Your task to perform on an android device: star an email in the gmail app Image 0: 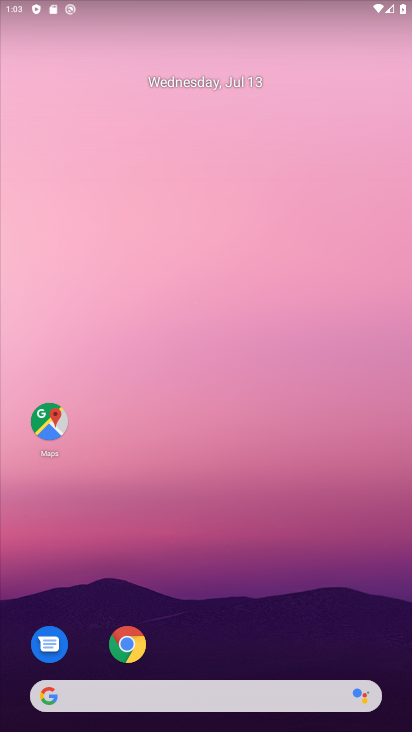
Step 0: press home button
Your task to perform on an android device: star an email in the gmail app Image 1: 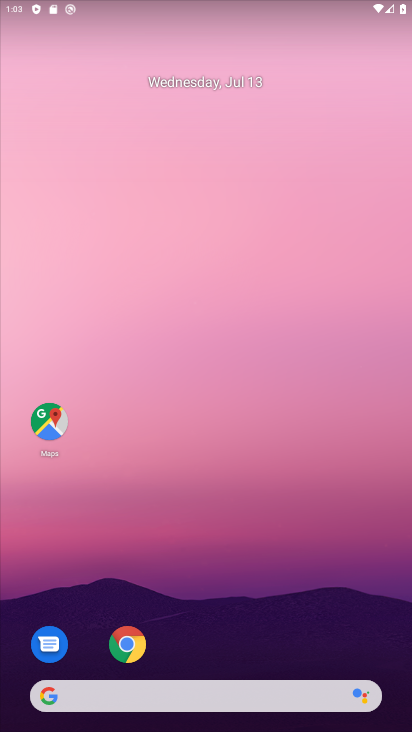
Step 1: drag from (267, 598) to (276, 63)
Your task to perform on an android device: star an email in the gmail app Image 2: 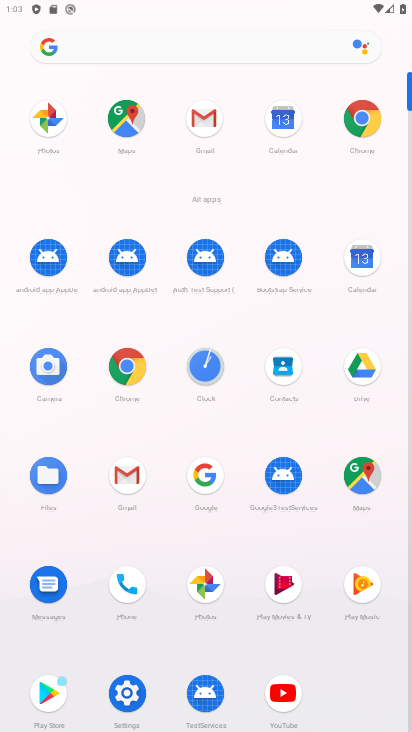
Step 2: click (196, 118)
Your task to perform on an android device: star an email in the gmail app Image 3: 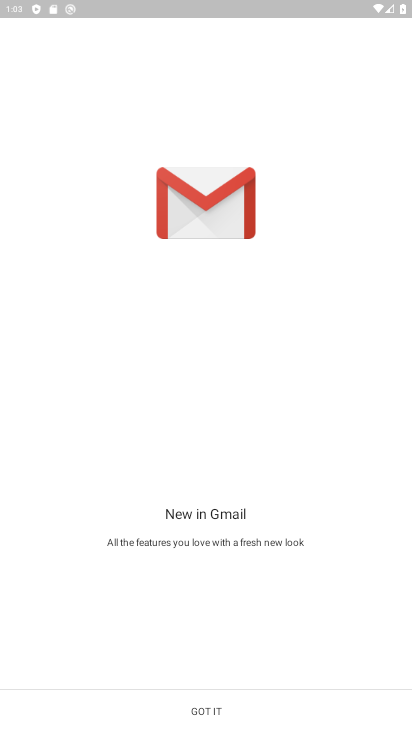
Step 3: click (208, 710)
Your task to perform on an android device: star an email in the gmail app Image 4: 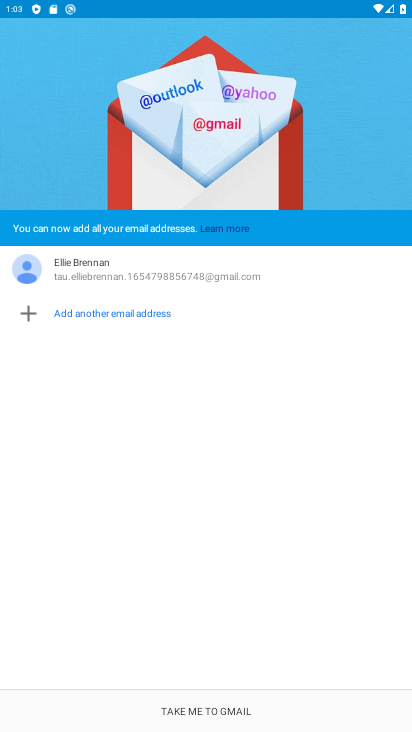
Step 4: click (205, 704)
Your task to perform on an android device: star an email in the gmail app Image 5: 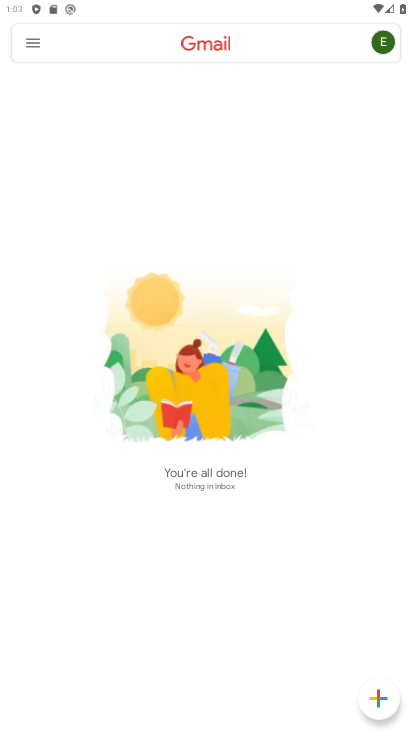
Step 5: click (31, 42)
Your task to perform on an android device: star an email in the gmail app Image 6: 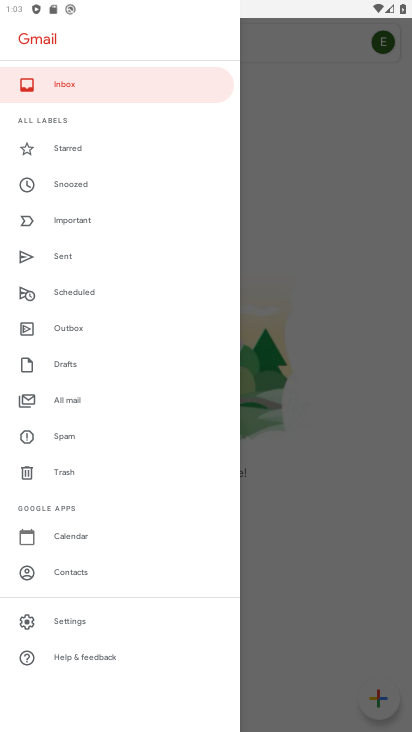
Step 6: click (53, 139)
Your task to perform on an android device: star an email in the gmail app Image 7: 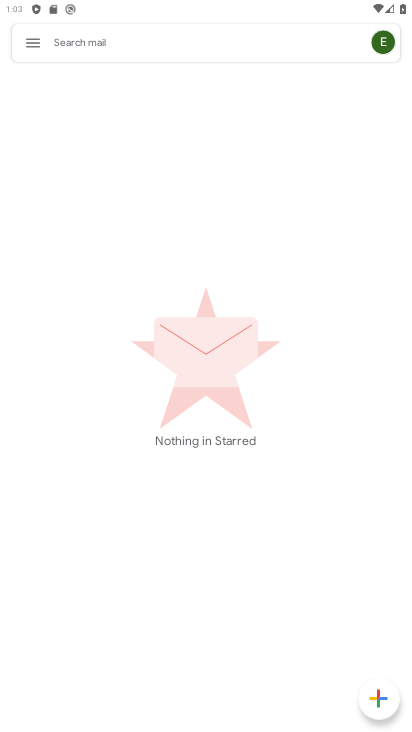
Step 7: task complete